Your task to perform on an android device: Open settings Image 0: 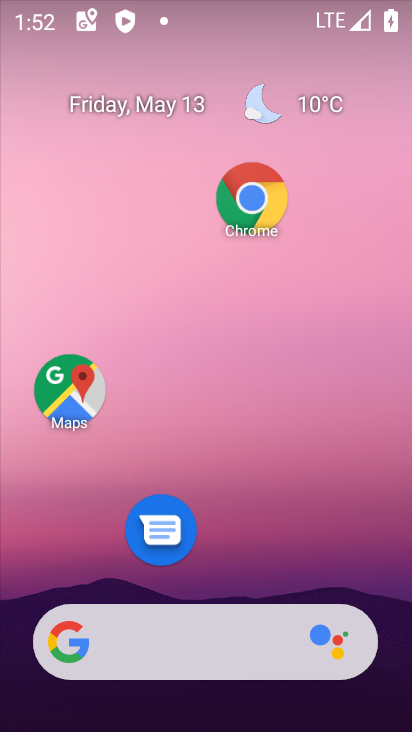
Step 0: drag from (236, 607) to (144, 11)
Your task to perform on an android device: Open settings Image 1: 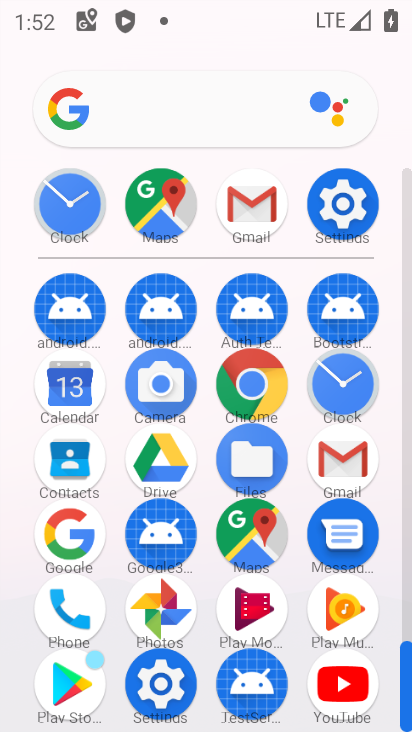
Step 1: click (331, 180)
Your task to perform on an android device: Open settings Image 2: 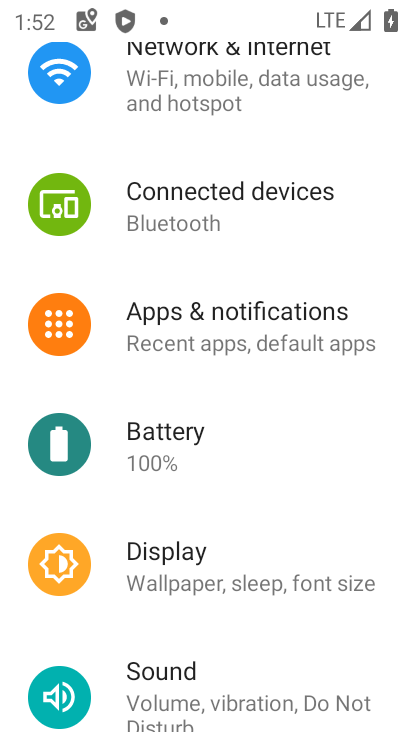
Step 2: task complete